Your task to perform on an android device: Go to notification settings Image 0: 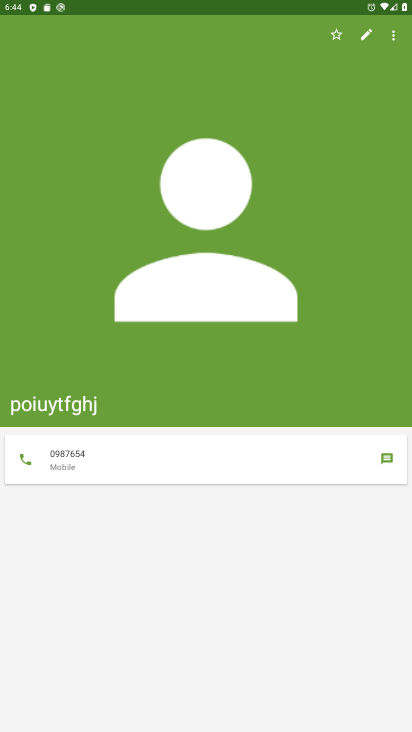
Step 0: press home button
Your task to perform on an android device: Go to notification settings Image 1: 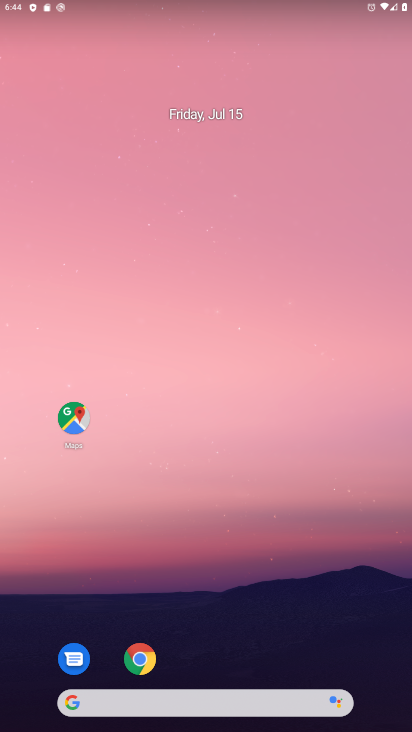
Step 1: drag from (368, 647) to (265, 101)
Your task to perform on an android device: Go to notification settings Image 2: 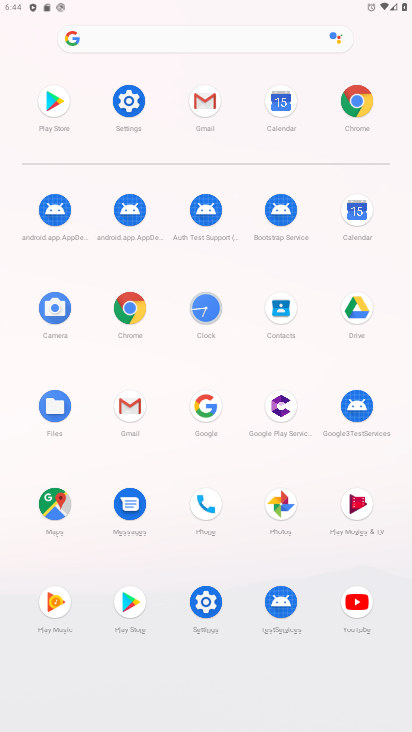
Step 2: click (206, 600)
Your task to perform on an android device: Go to notification settings Image 3: 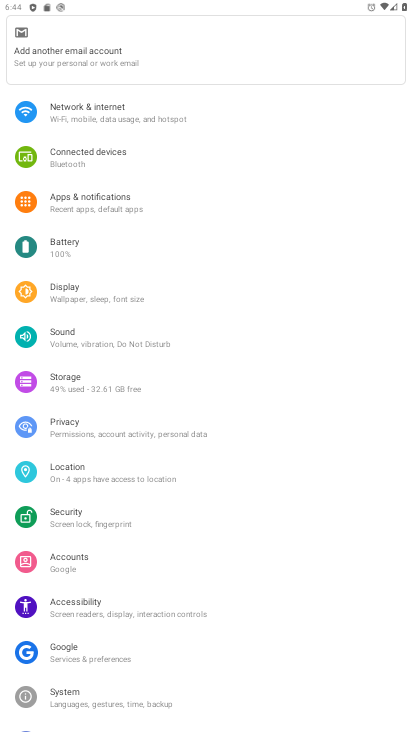
Step 3: click (88, 201)
Your task to perform on an android device: Go to notification settings Image 4: 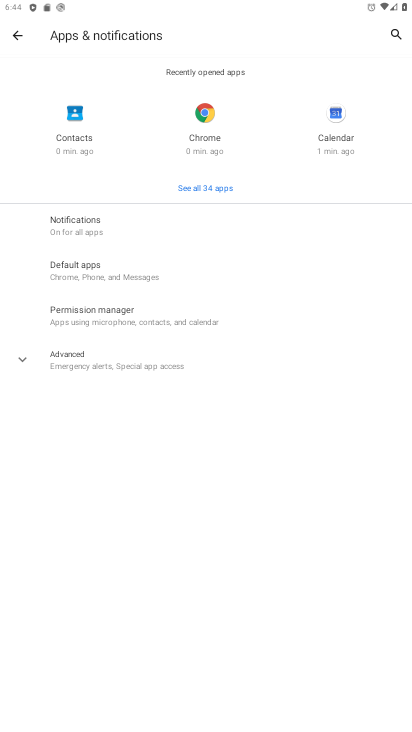
Step 4: click (85, 230)
Your task to perform on an android device: Go to notification settings Image 5: 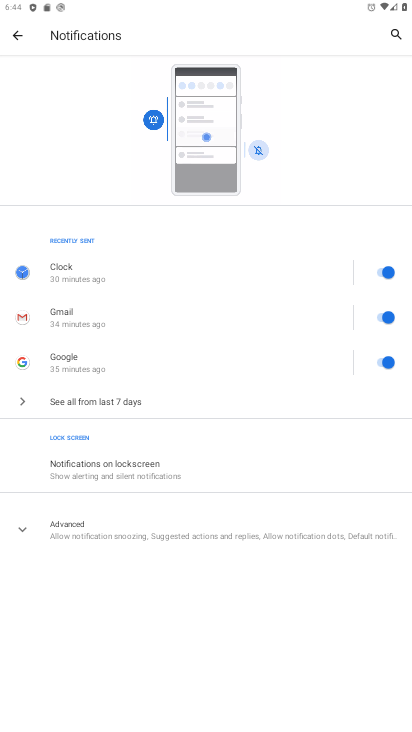
Step 5: task complete